Your task to perform on an android device: turn on translation in the chrome app Image 0: 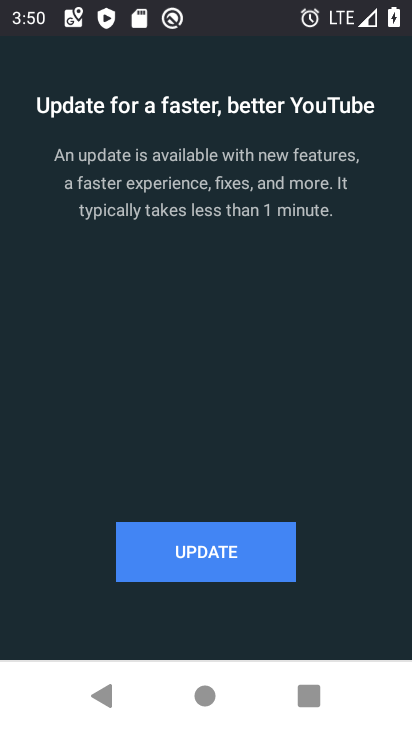
Step 0: press home button
Your task to perform on an android device: turn on translation in the chrome app Image 1: 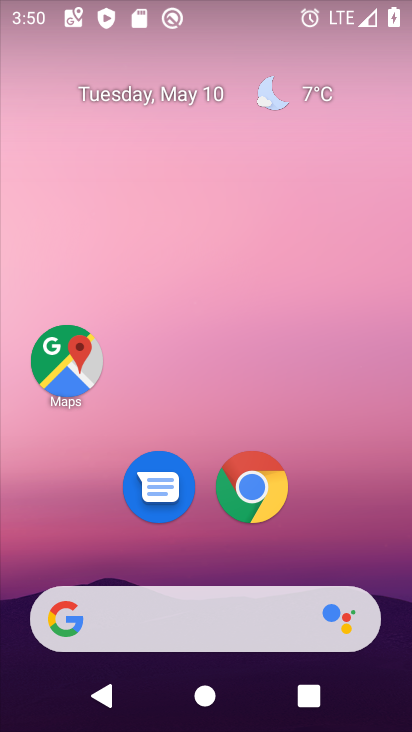
Step 1: click (254, 488)
Your task to perform on an android device: turn on translation in the chrome app Image 2: 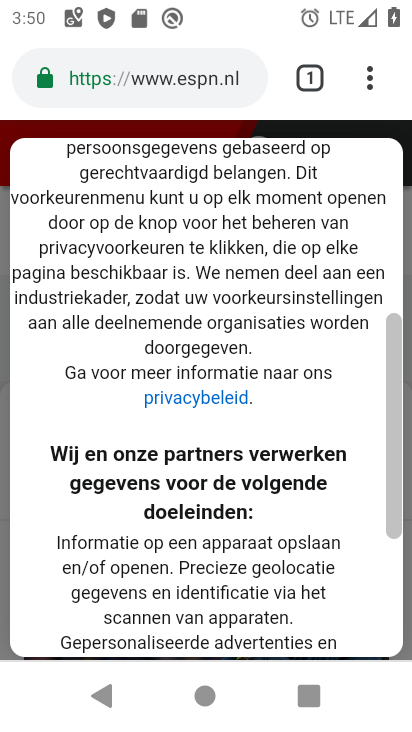
Step 2: click (370, 66)
Your task to perform on an android device: turn on translation in the chrome app Image 3: 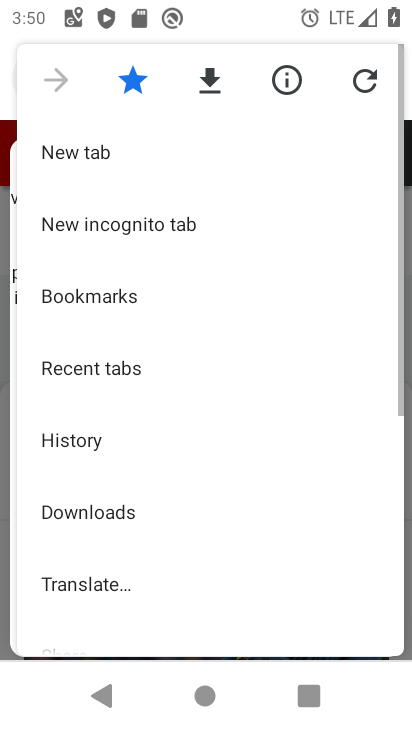
Step 3: drag from (113, 601) to (199, 149)
Your task to perform on an android device: turn on translation in the chrome app Image 4: 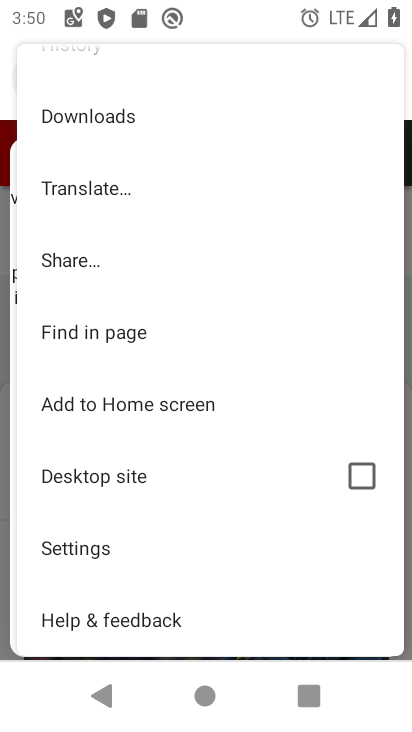
Step 4: click (110, 546)
Your task to perform on an android device: turn on translation in the chrome app Image 5: 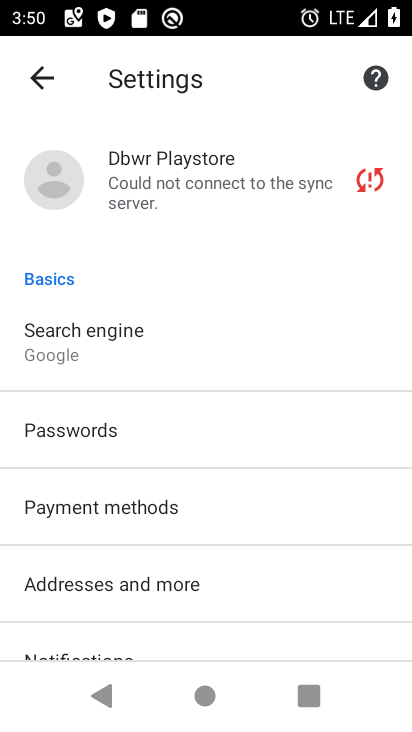
Step 5: drag from (246, 594) to (233, 236)
Your task to perform on an android device: turn on translation in the chrome app Image 6: 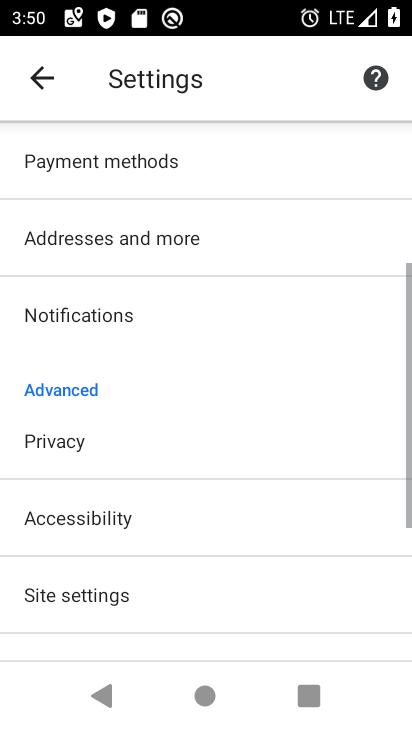
Step 6: drag from (195, 603) to (186, 263)
Your task to perform on an android device: turn on translation in the chrome app Image 7: 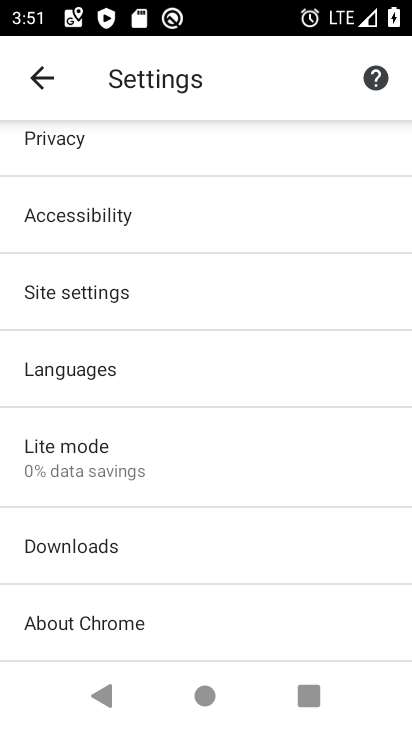
Step 7: click (113, 366)
Your task to perform on an android device: turn on translation in the chrome app Image 8: 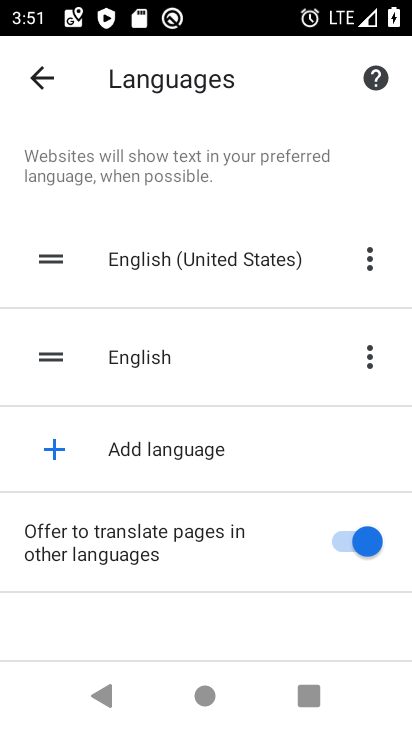
Step 8: task complete